Your task to perform on an android device: Open Chrome and go to the settings page Image 0: 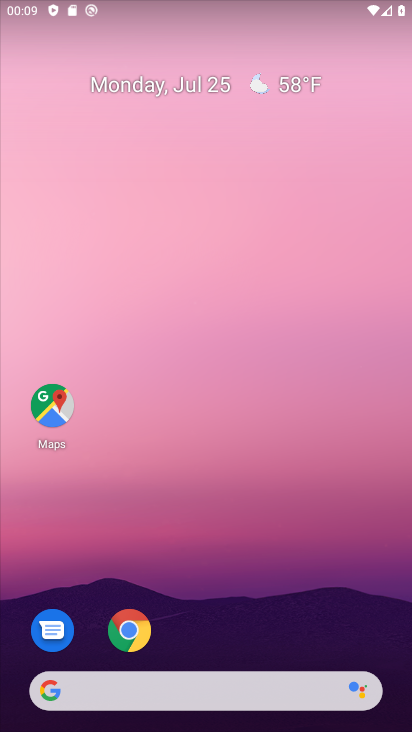
Step 0: drag from (275, 631) to (228, 158)
Your task to perform on an android device: Open Chrome and go to the settings page Image 1: 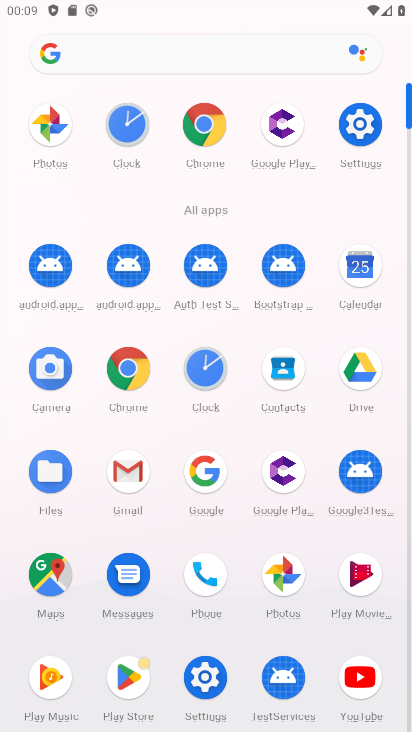
Step 1: click (185, 127)
Your task to perform on an android device: Open Chrome and go to the settings page Image 2: 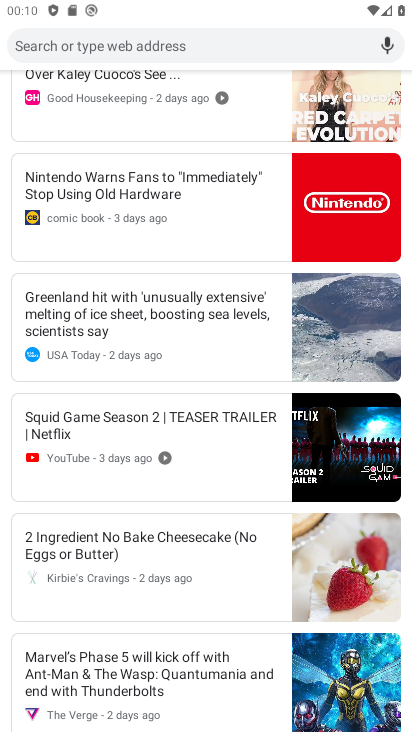
Step 2: task complete